Your task to perform on an android device: Clear the cart on ebay. Search for bose quietcomfort 35 on ebay, select the first entry, add it to the cart, then select checkout. Image 0: 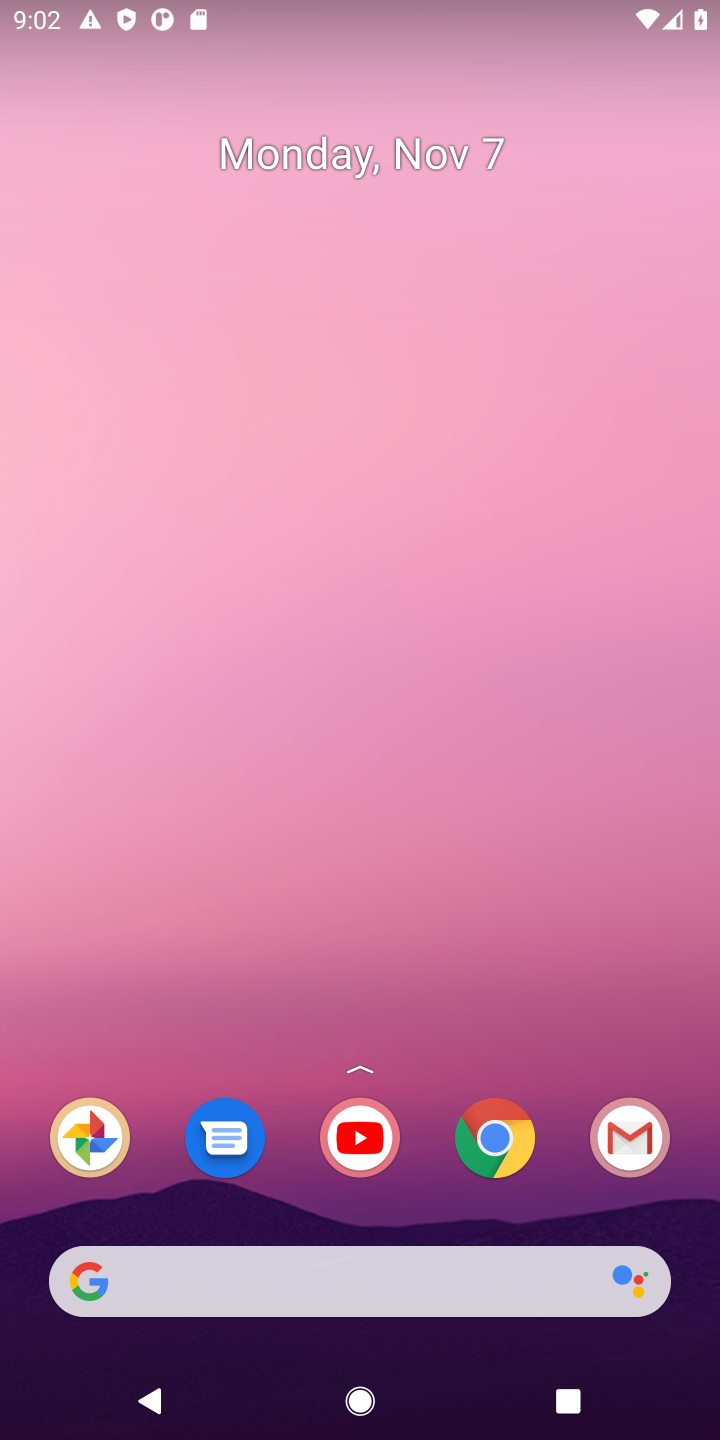
Step 0: drag from (412, 1226) to (366, 219)
Your task to perform on an android device: Clear the cart on ebay. Search for bose quietcomfort 35 on ebay, select the first entry, add it to the cart, then select checkout. Image 1: 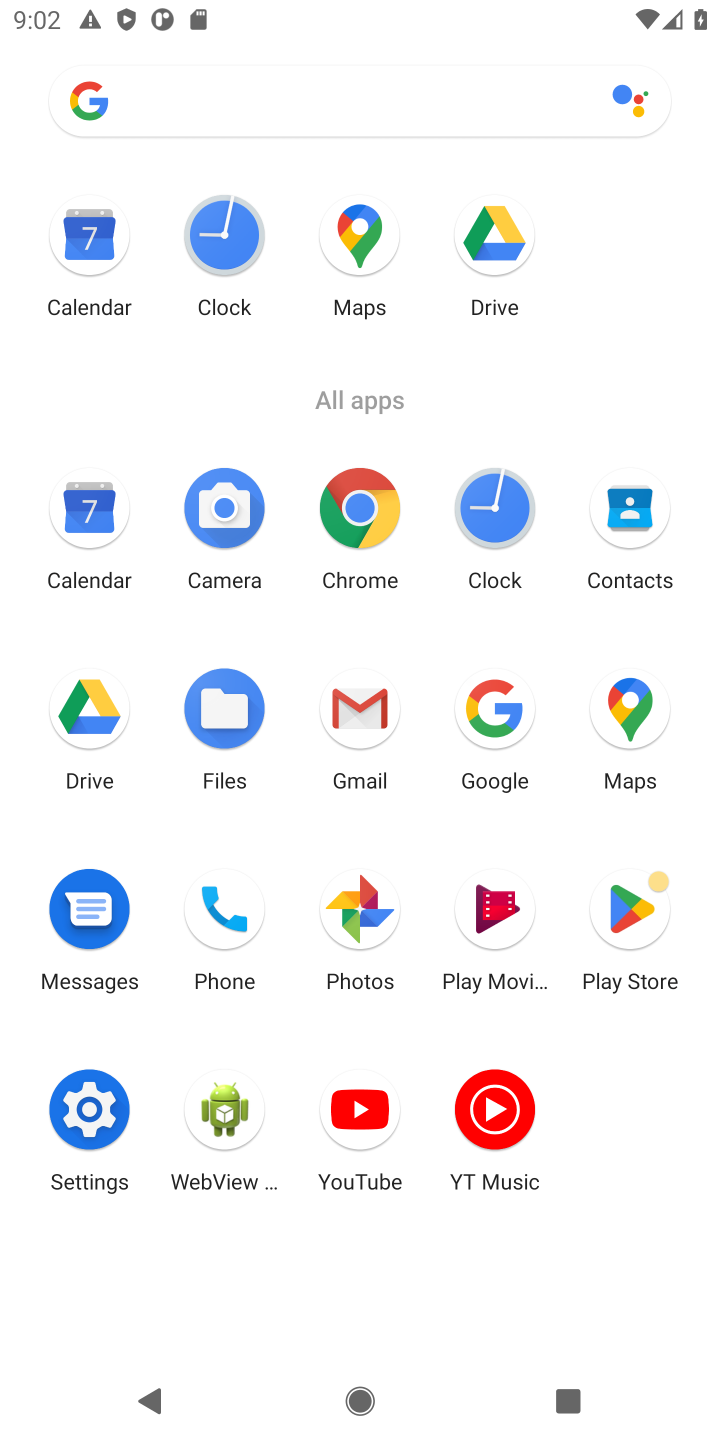
Step 1: click (363, 517)
Your task to perform on an android device: Clear the cart on ebay. Search for bose quietcomfort 35 on ebay, select the first entry, add it to the cart, then select checkout. Image 2: 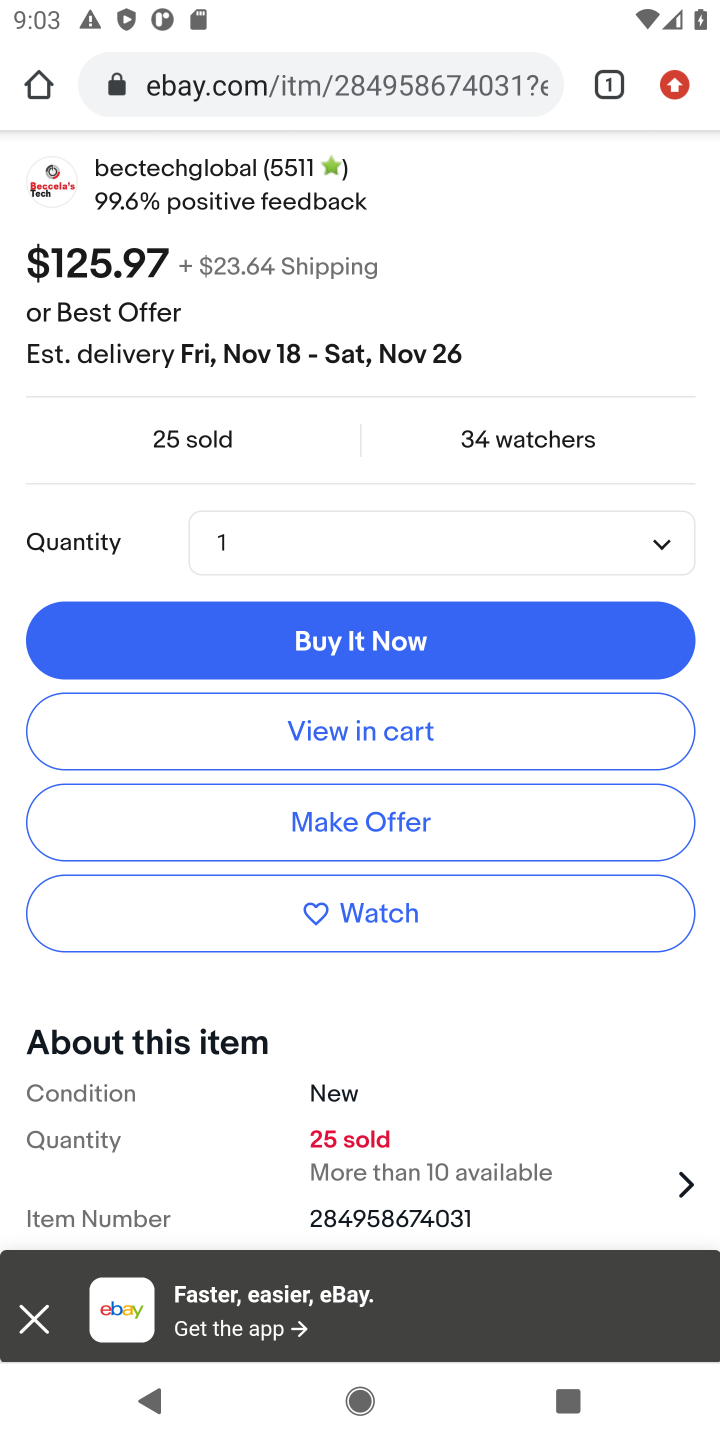
Step 2: click (376, 71)
Your task to perform on an android device: Clear the cart on ebay. Search for bose quietcomfort 35 on ebay, select the first entry, add it to the cart, then select checkout. Image 3: 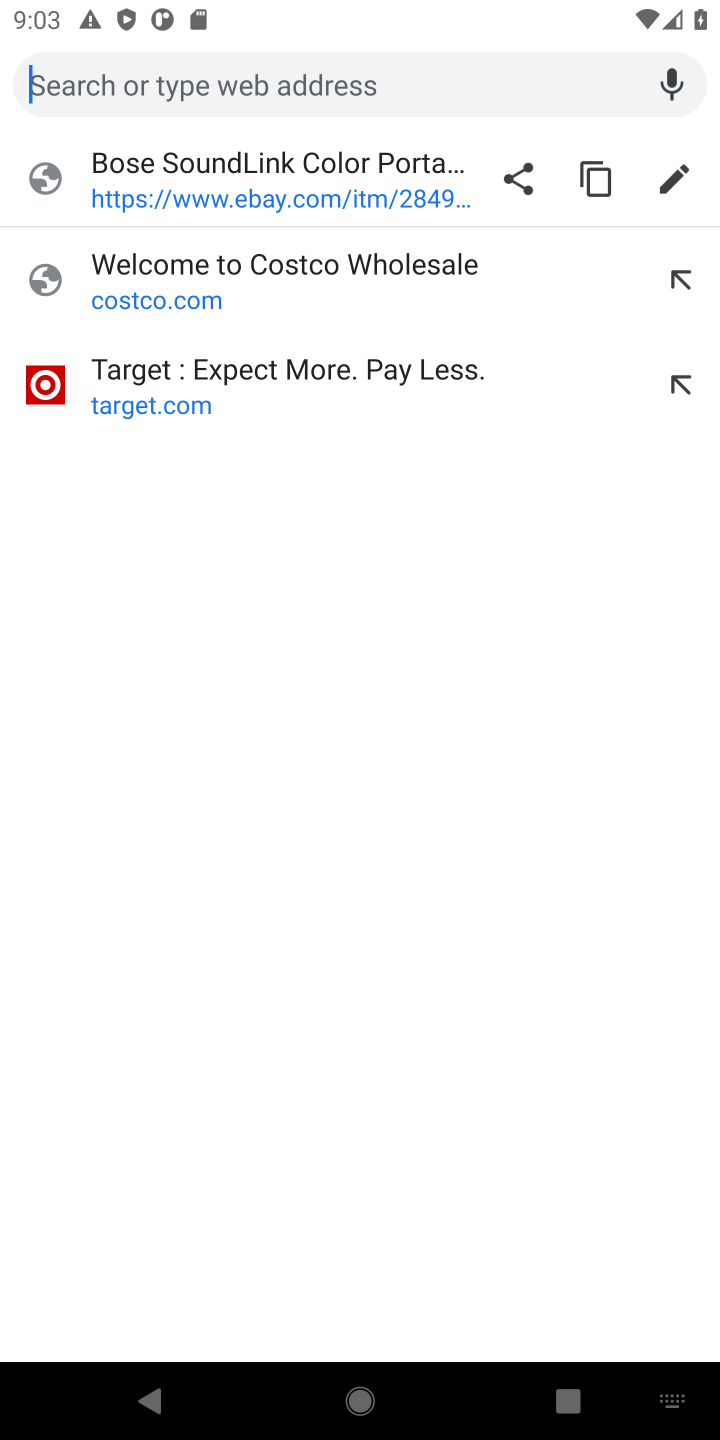
Step 3: type "ebay.com"
Your task to perform on an android device: Clear the cart on ebay. Search for bose quietcomfort 35 on ebay, select the first entry, add it to the cart, then select checkout. Image 4: 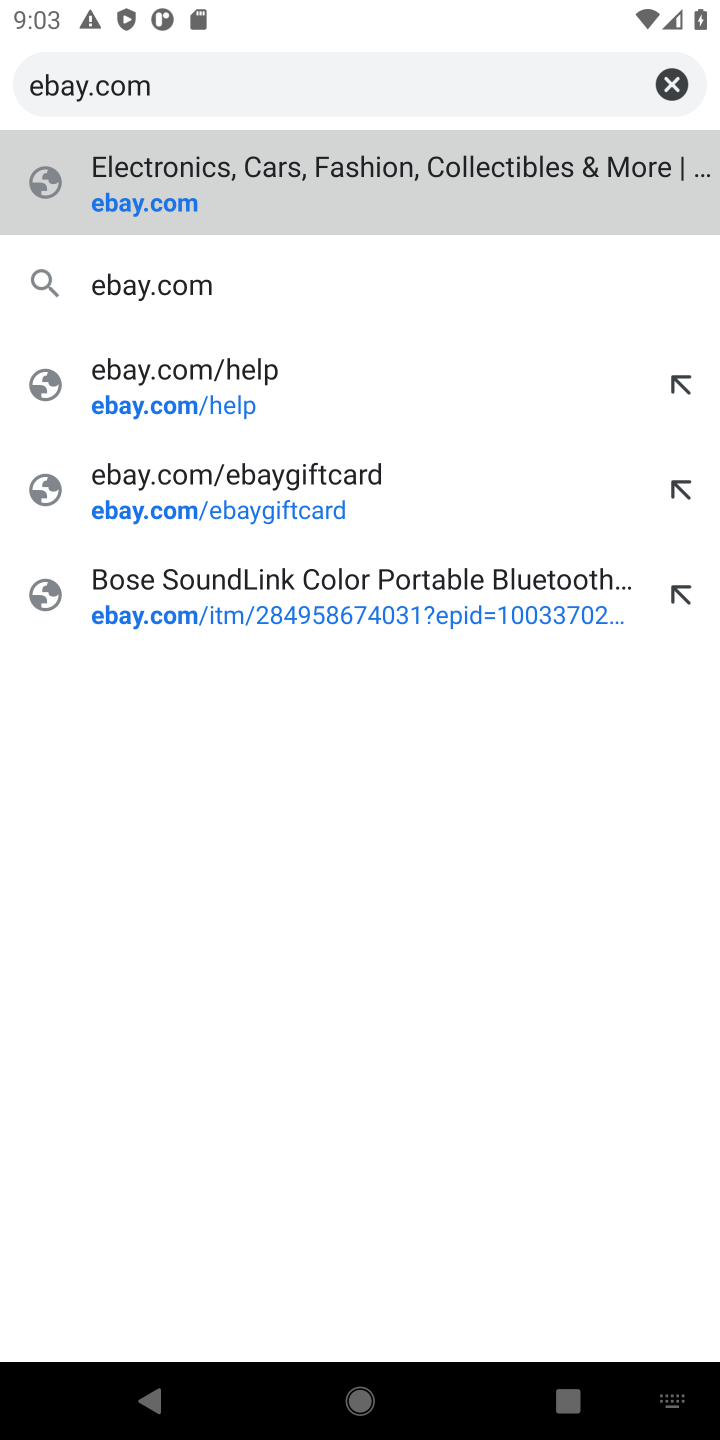
Step 4: press enter
Your task to perform on an android device: Clear the cart on ebay. Search for bose quietcomfort 35 on ebay, select the first entry, add it to the cart, then select checkout. Image 5: 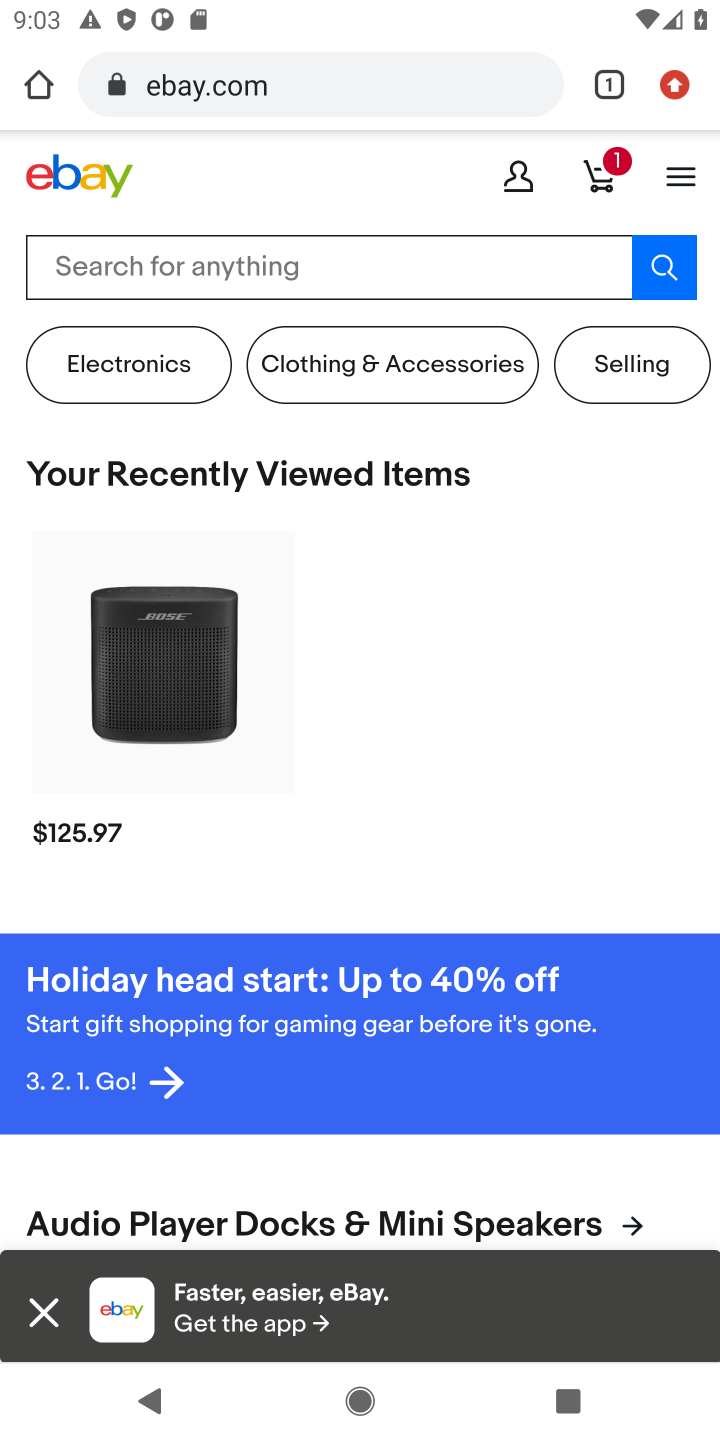
Step 5: click (602, 185)
Your task to perform on an android device: Clear the cart on ebay. Search for bose quietcomfort 35 on ebay, select the first entry, add it to the cart, then select checkout. Image 6: 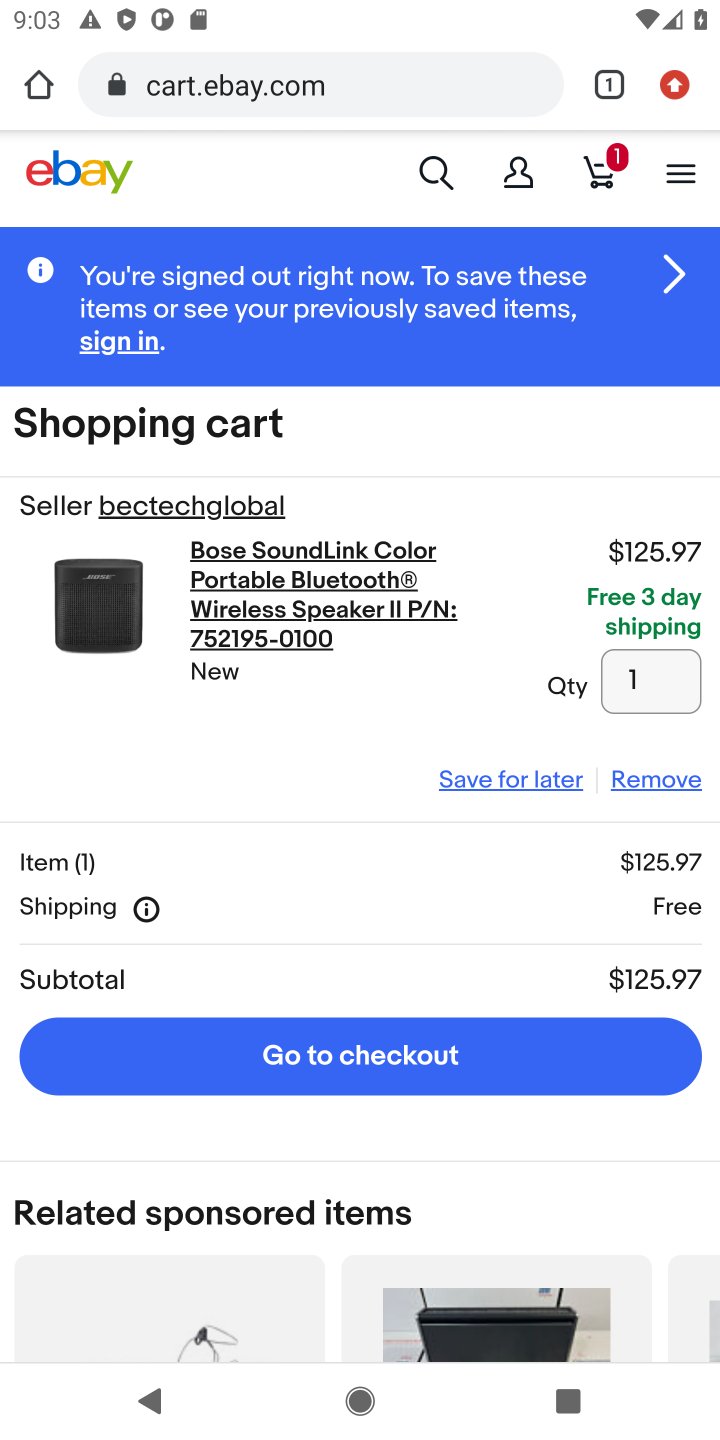
Step 6: click (686, 780)
Your task to perform on an android device: Clear the cart on ebay. Search for bose quietcomfort 35 on ebay, select the first entry, add it to the cart, then select checkout. Image 7: 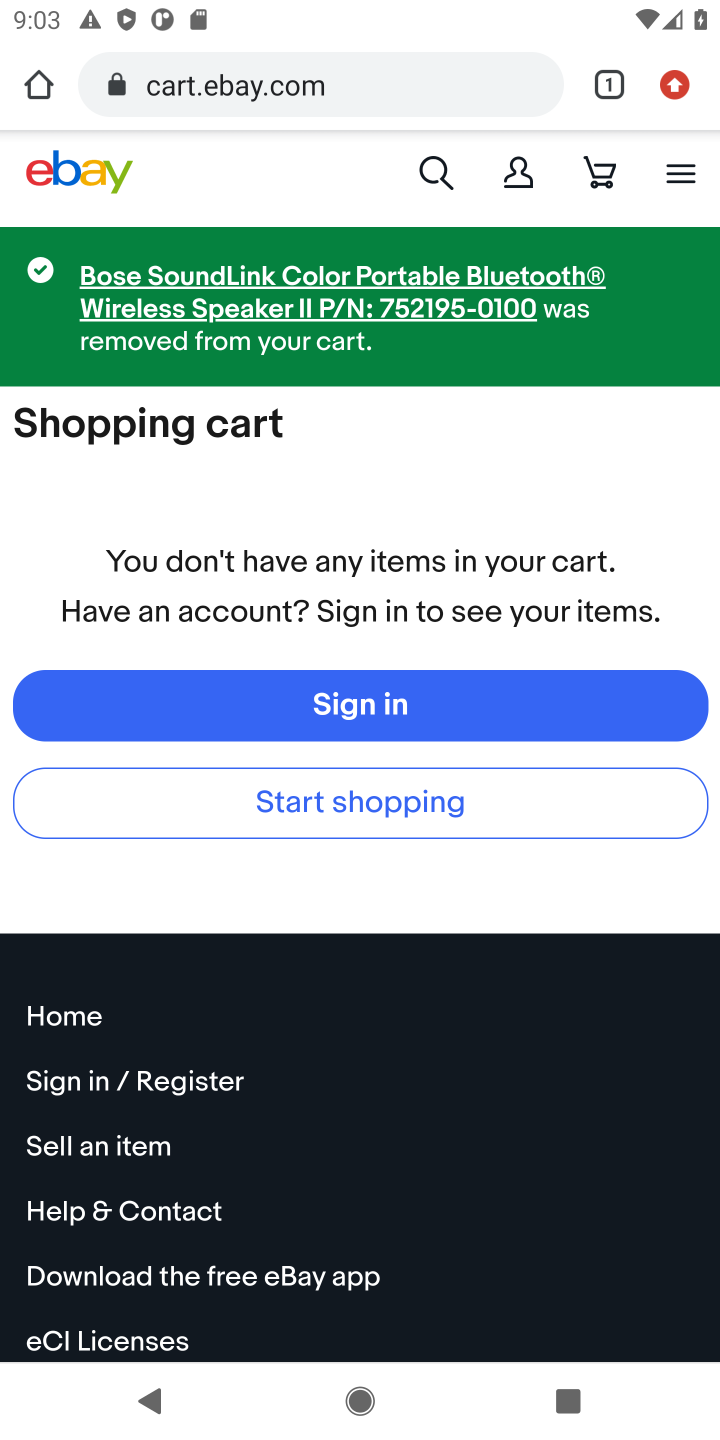
Step 7: click (423, 794)
Your task to perform on an android device: Clear the cart on ebay. Search for bose quietcomfort 35 on ebay, select the first entry, add it to the cart, then select checkout. Image 8: 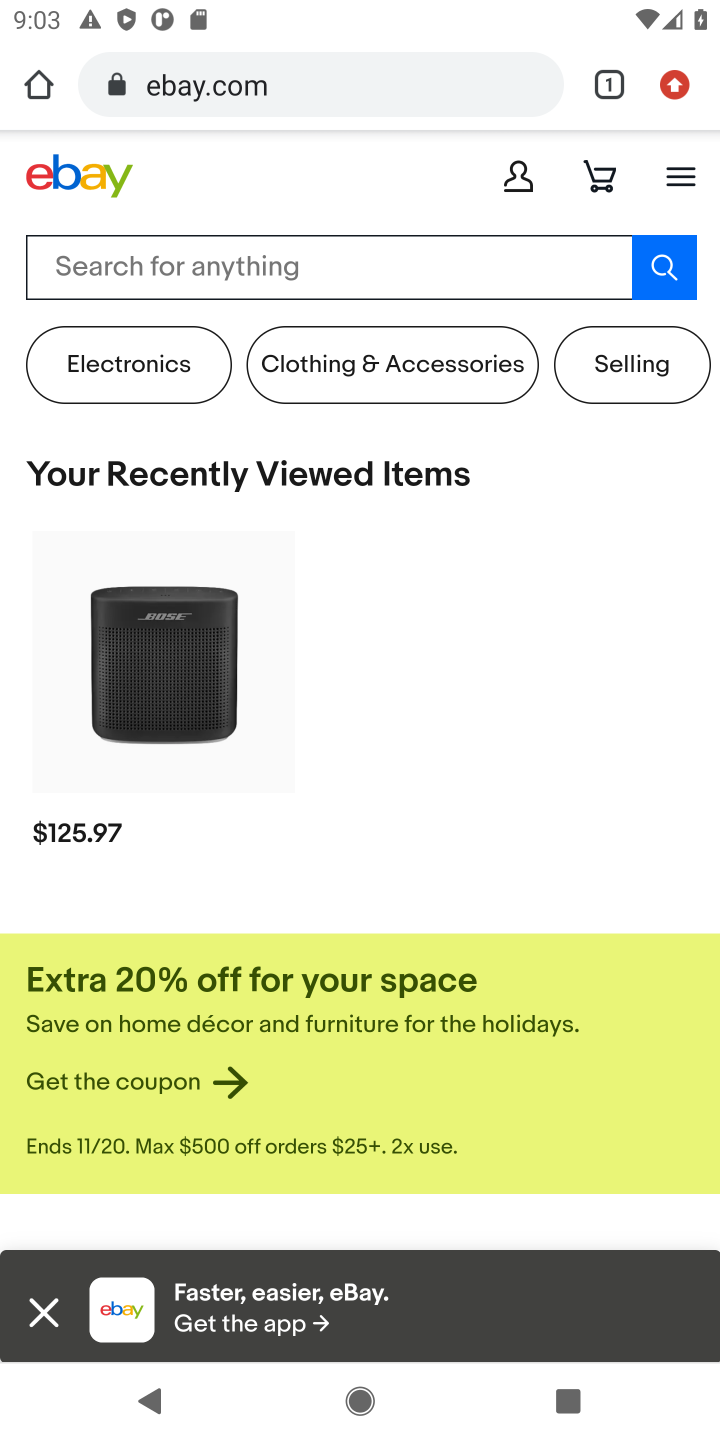
Step 8: click (364, 244)
Your task to perform on an android device: Clear the cart on ebay. Search for bose quietcomfort 35 on ebay, select the first entry, add it to the cart, then select checkout. Image 9: 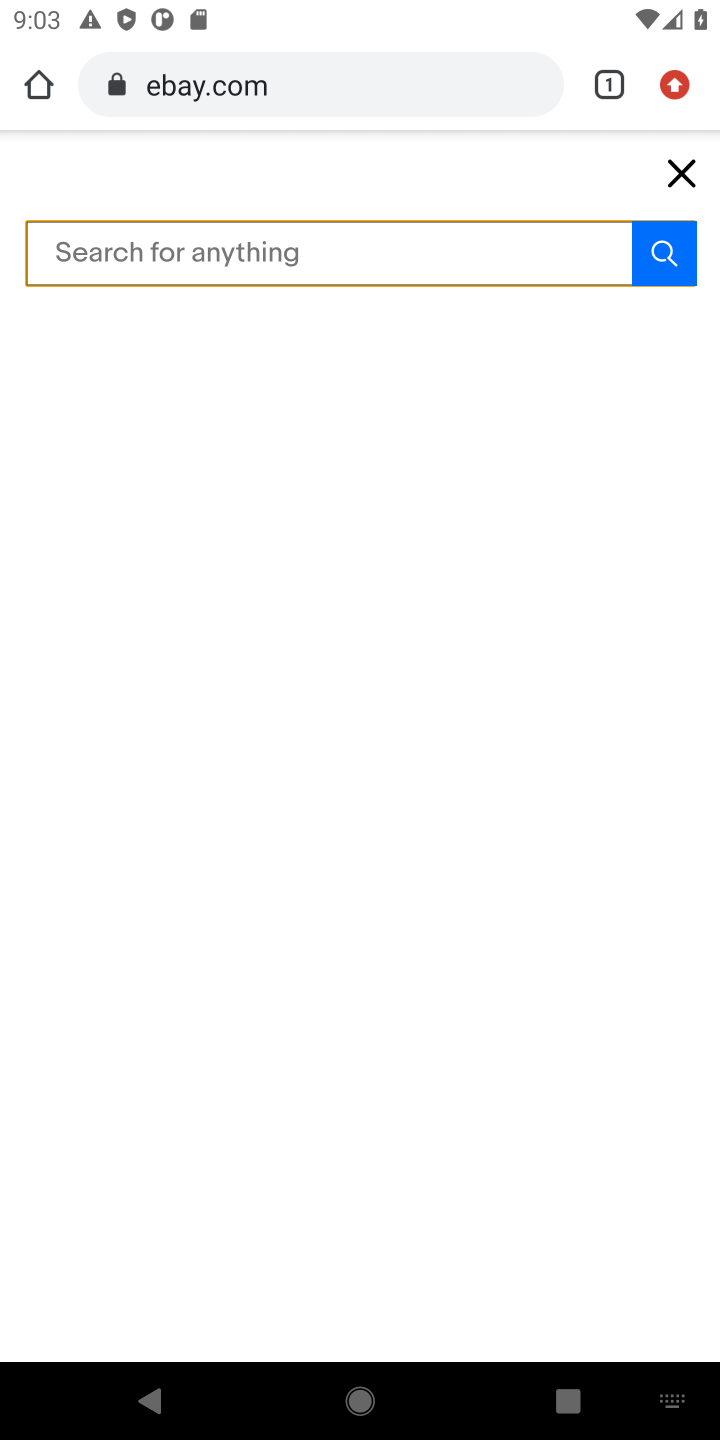
Step 9: type "quietcomfort 35"
Your task to perform on an android device: Clear the cart on ebay. Search for bose quietcomfort 35 on ebay, select the first entry, add it to the cart, then select checkout. Image 10: 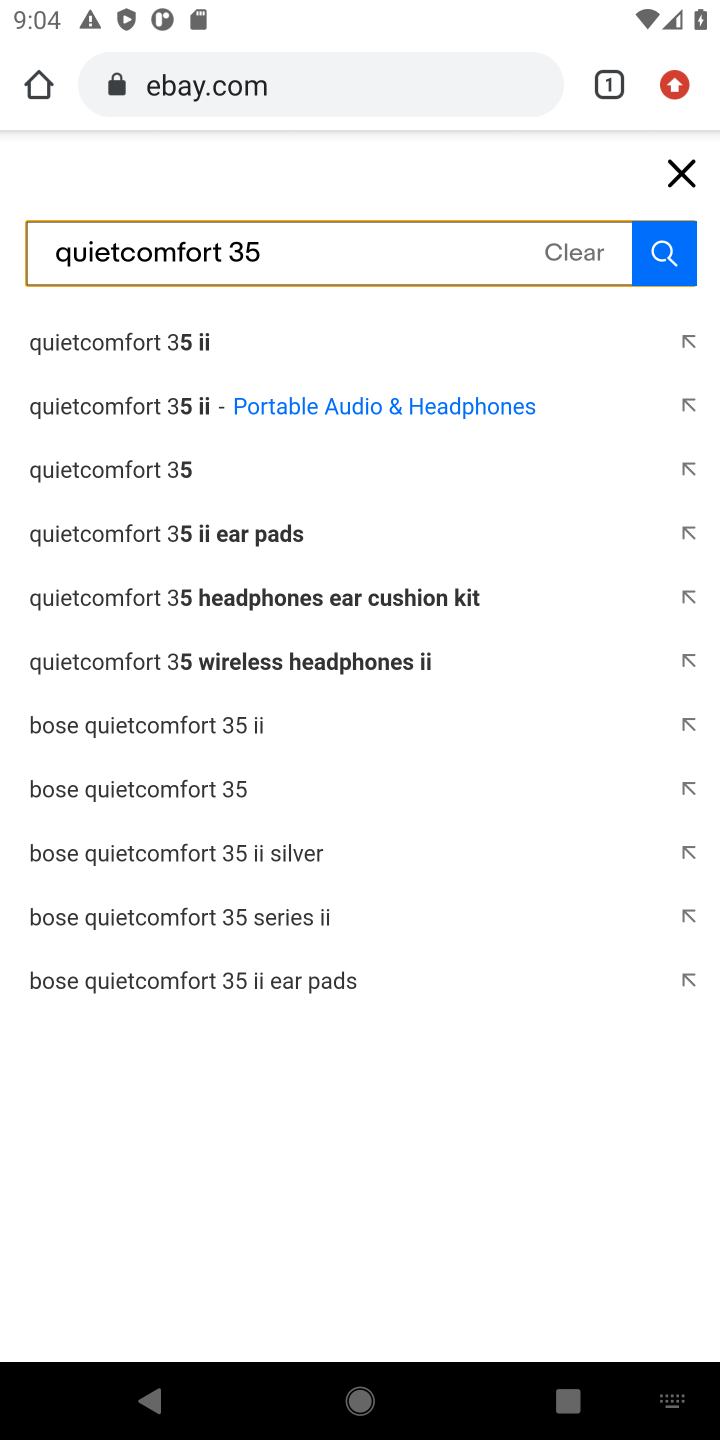
Step 10: press enter
Your task to perform on an android device: Clear the cart on ebay. Search for bose quietcomfort 35 on ebay, select the first entry, add it to the cart, then select checkout. Image 11: 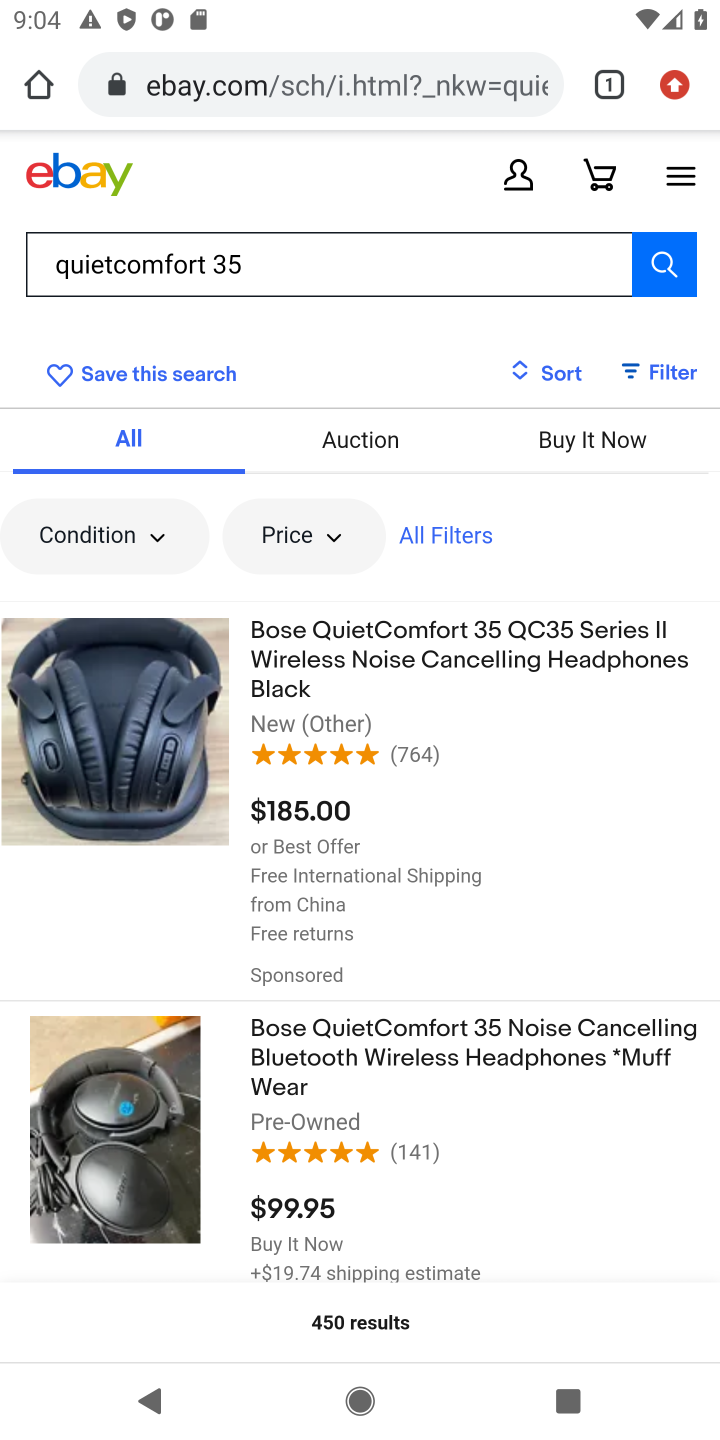
Step 11: drag from (394, 1216) to (360, 906)
Your task to perform on an android device: Clear the cart on ebay. Search for bose quietcomfort 35 on ebay, select the first entry, add it to the cart, then select checkout. Image 12: 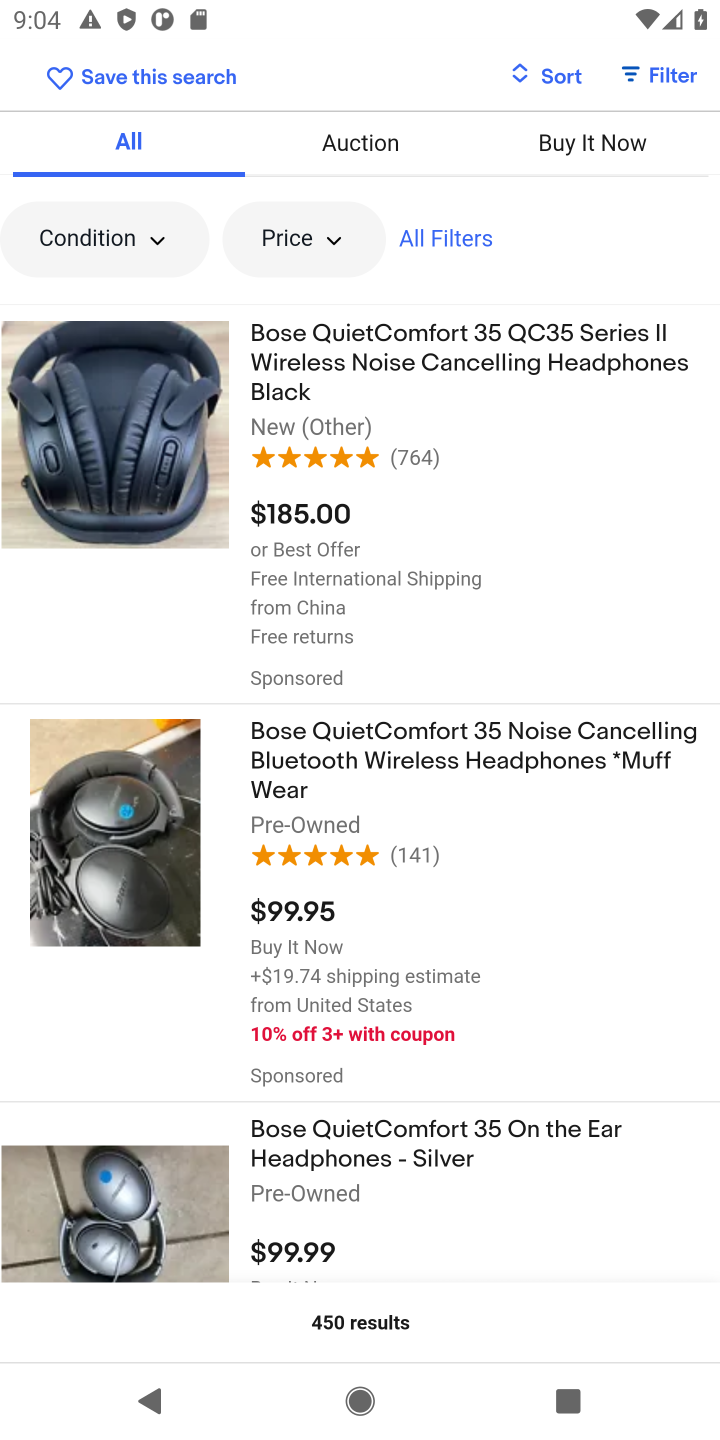
Step 12: click (182, 409)
Your task to perform on an android device: Clear the cart on ebay. Search for bose quietcomfort 35 on ebay, select the first entry, add it to the cart, then select checkout. Image 13: 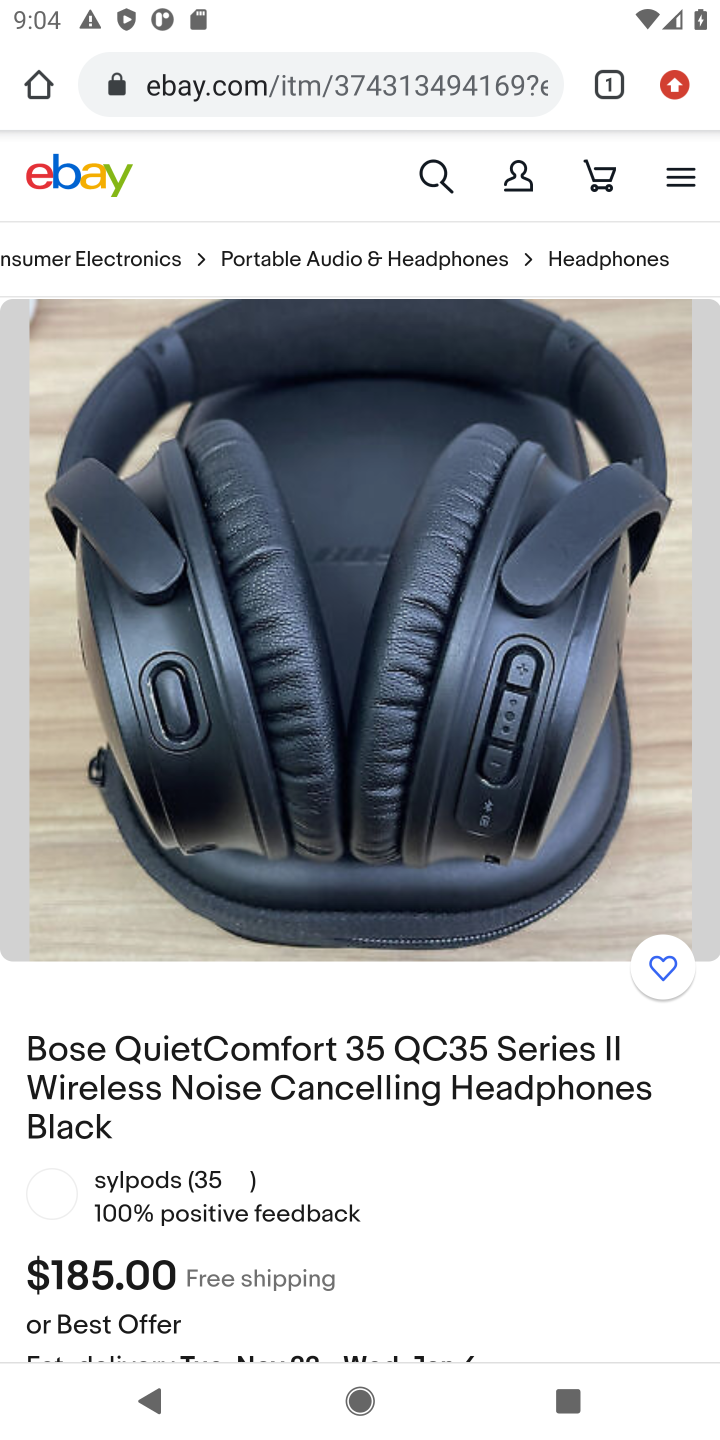
Step 13: drag from (390, 1164) to (406, 466)
Your task to perform on an android device: Clear the cart on ebay. Search for bose quietcomfort 35 on ebay, select the first entry, add it to the cart, then select checkout. Image 14: 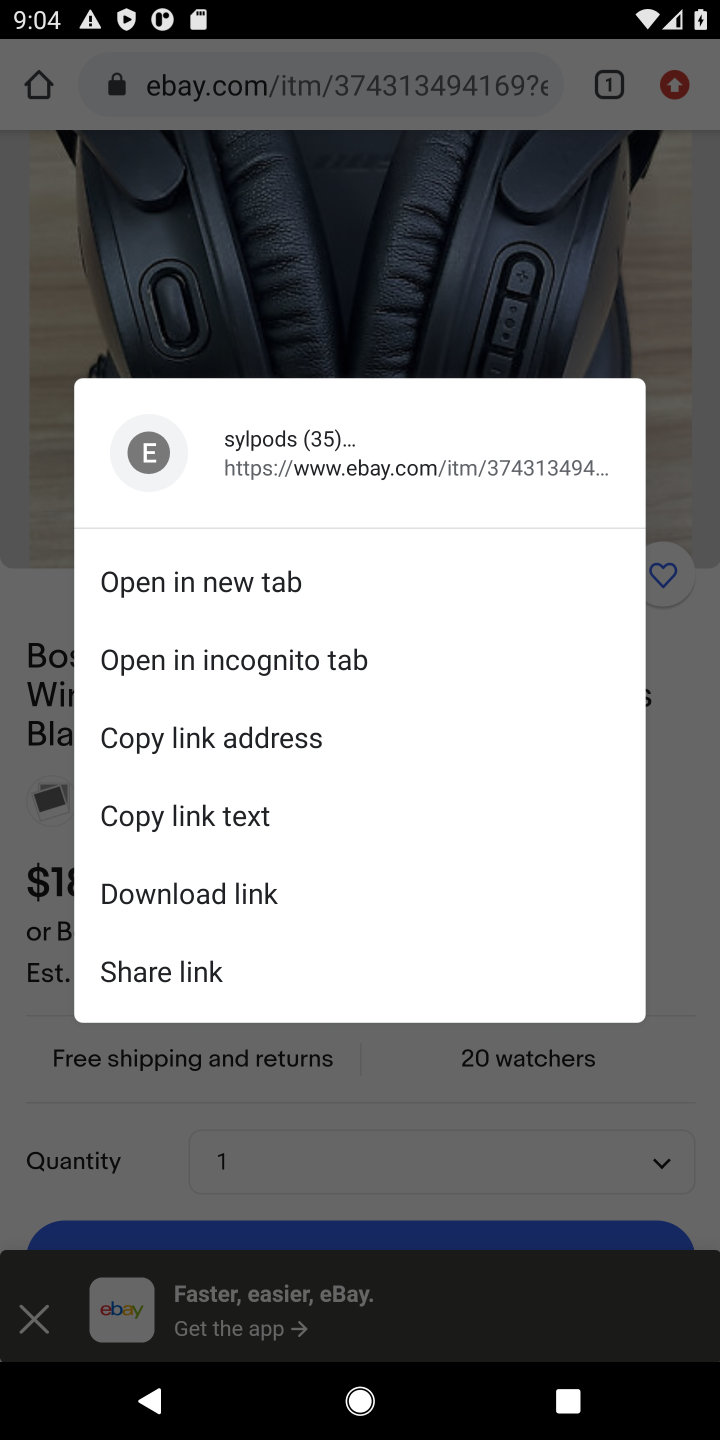
Step 14: click (473, 323)
Your task to perform on an android device: Clear the cart on ebay. Search for bose quietcomfort 35 on ebay, select the first entry, add it to the cart, then select checkout. Image 15: 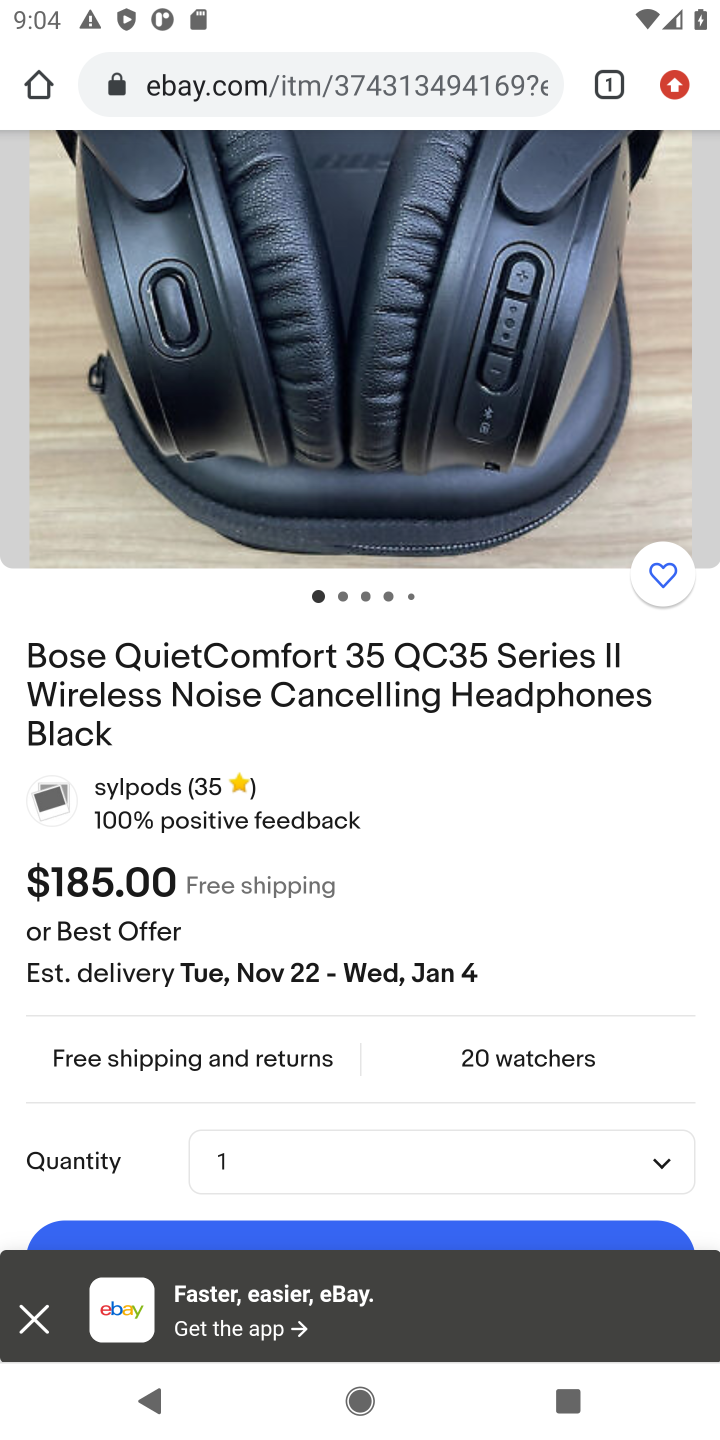
Step 15: drag from (235, 1134) to (279, 781)
Your task to perform on an android device: Clear the cart on ebay. Search for bose quietcomfort 35 on ebay, select the first entry, add it to the cart, then select checkout. Image 16: 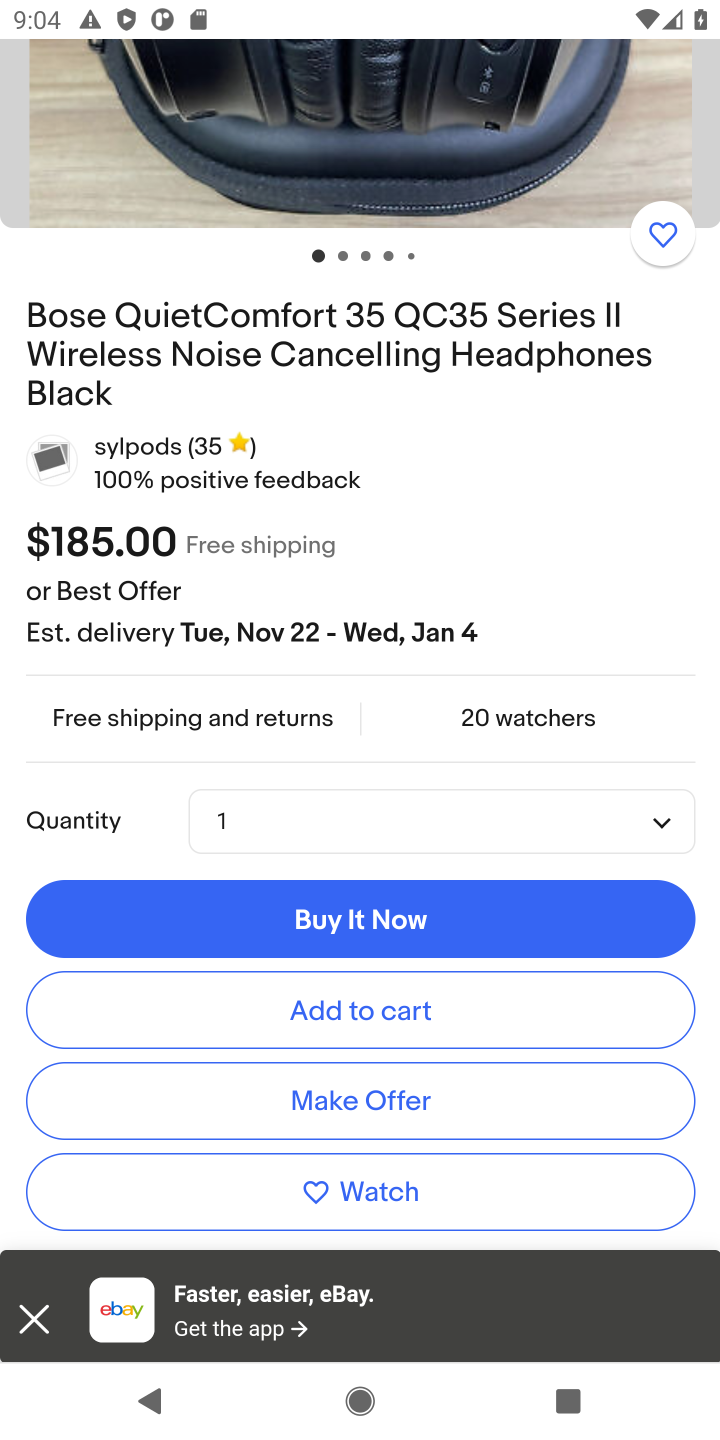
Step 16: click (377, 1004)
Your task to perform on an android device: Clear the cart on ebay. Search for bose quietcomfort 35 on ebay, select the first entry, add it to the cart, then select checkout. Image 17: 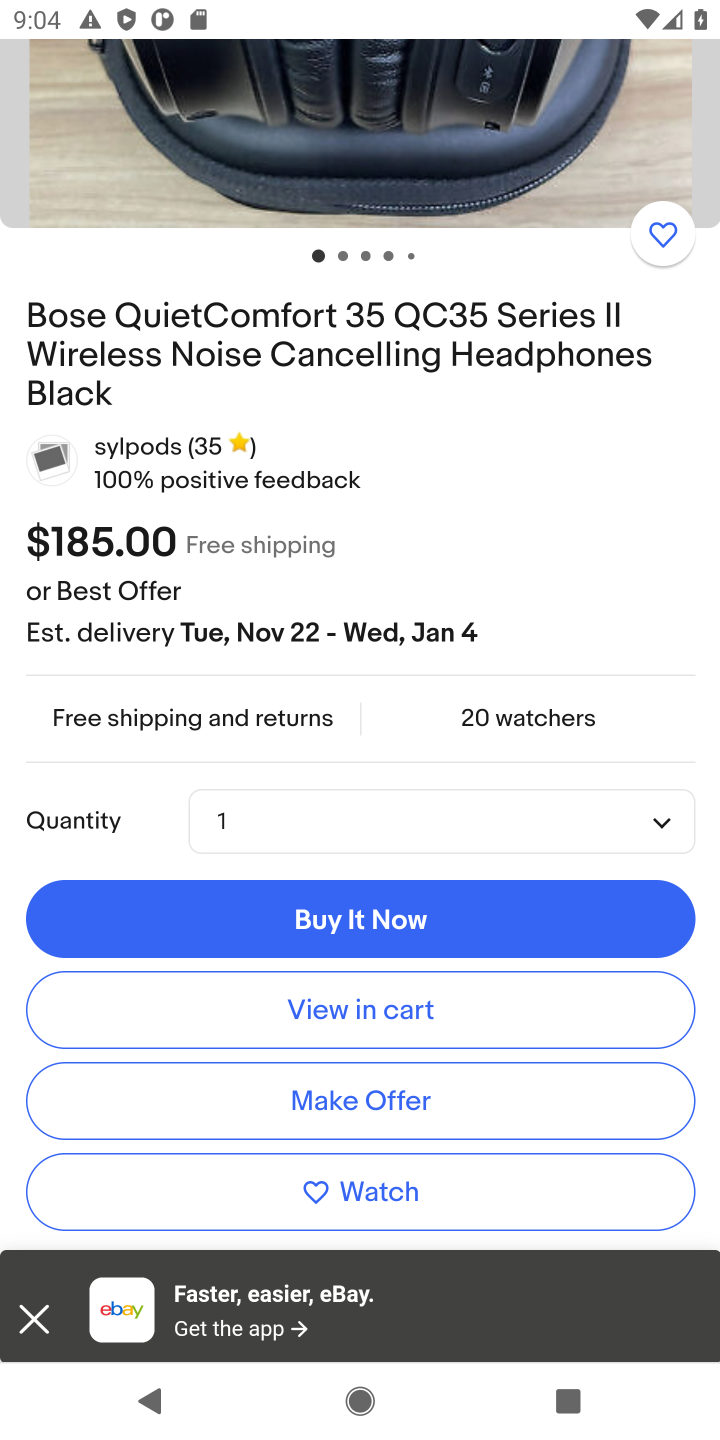
Step 17: click (377, 1004)
Your task to perform on an android device: Clear the cart on ebay. Search for bose quietcomfort 35 on ebay, select the first entry, add it to the cart, then select checkout. Image 18: 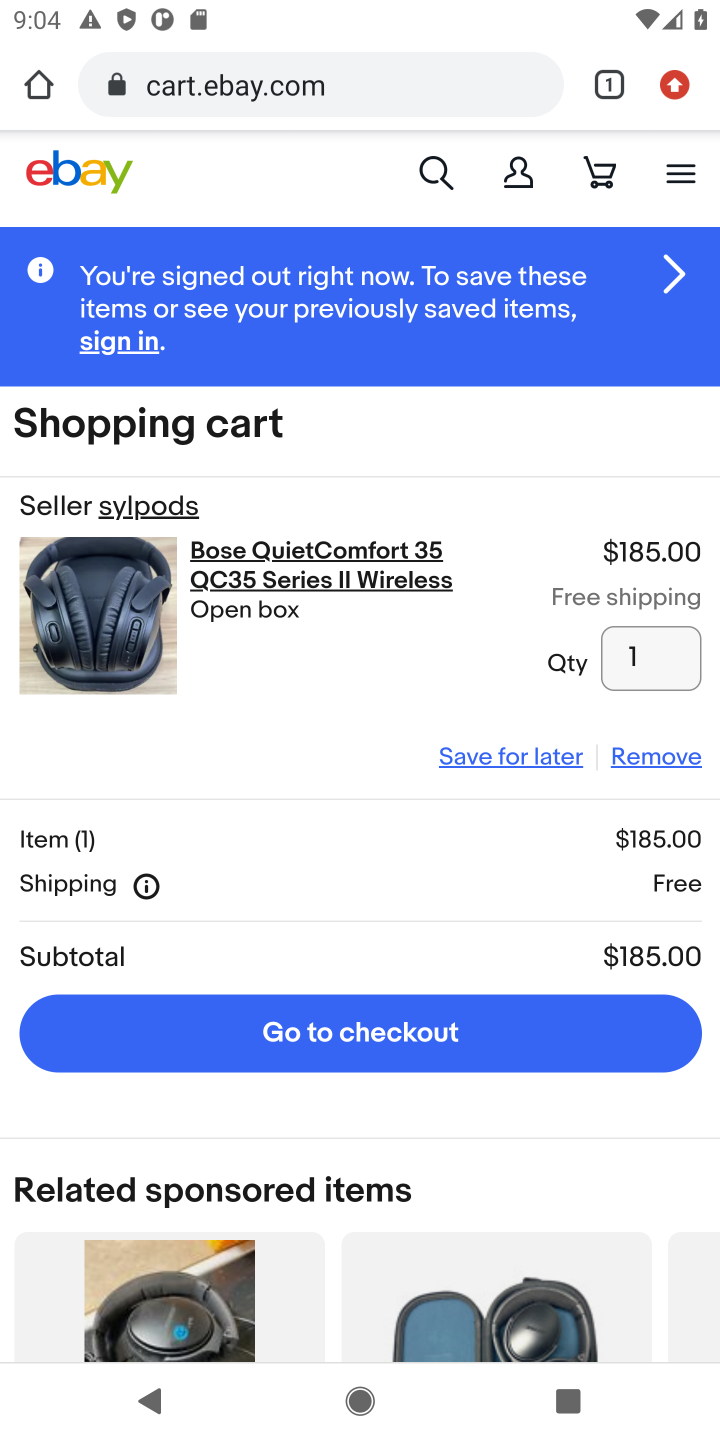
Step 18: click (377, 1004)
Your task to perform on an android device: Clear the cart on ebay. Search for bose quietcomfort 35 on ebay, select the first entry, add it to the cart, then select checkout. Image 19: 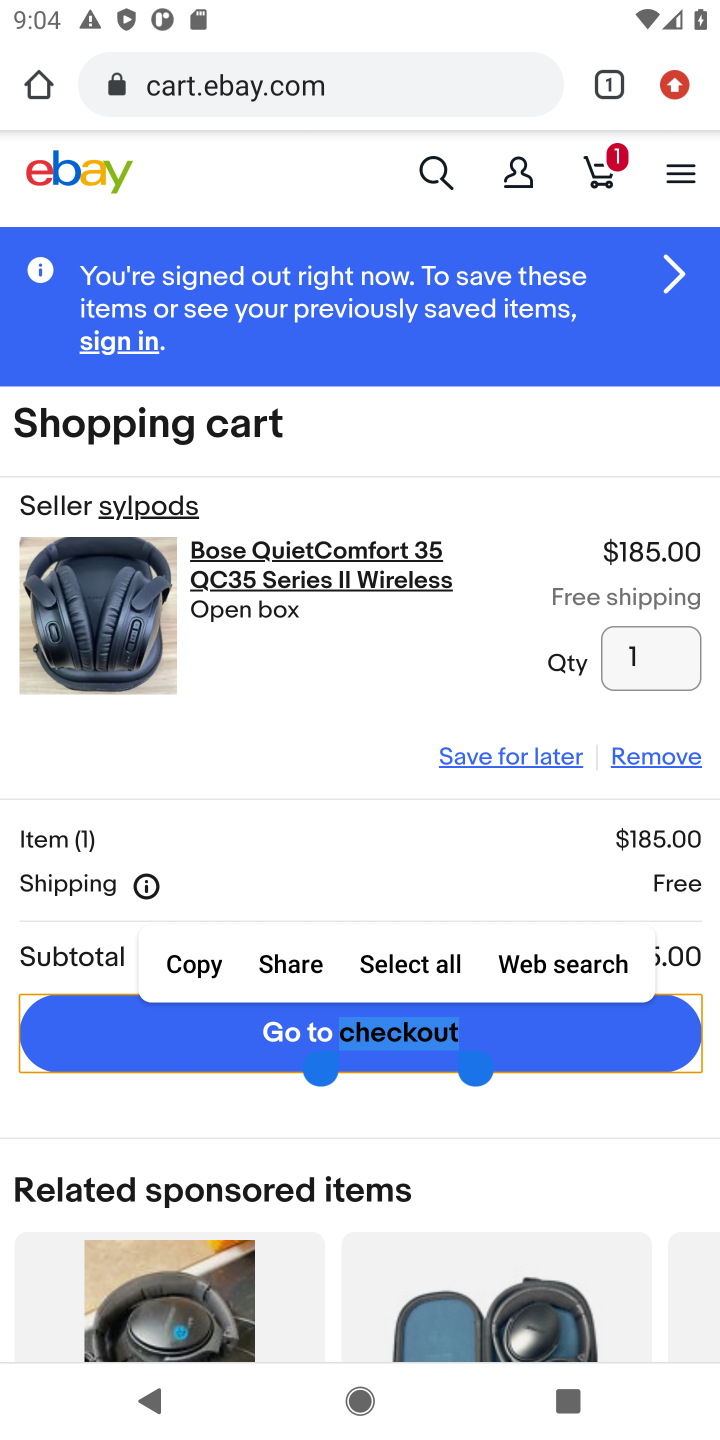
Step 19: click (412, 1028)
Your task to perform on an android device: Clear the cart on ebay. Search for bose quietcomfort 35 on ebay, select the first entry, add it to the cart, then select checkout. Image 20: 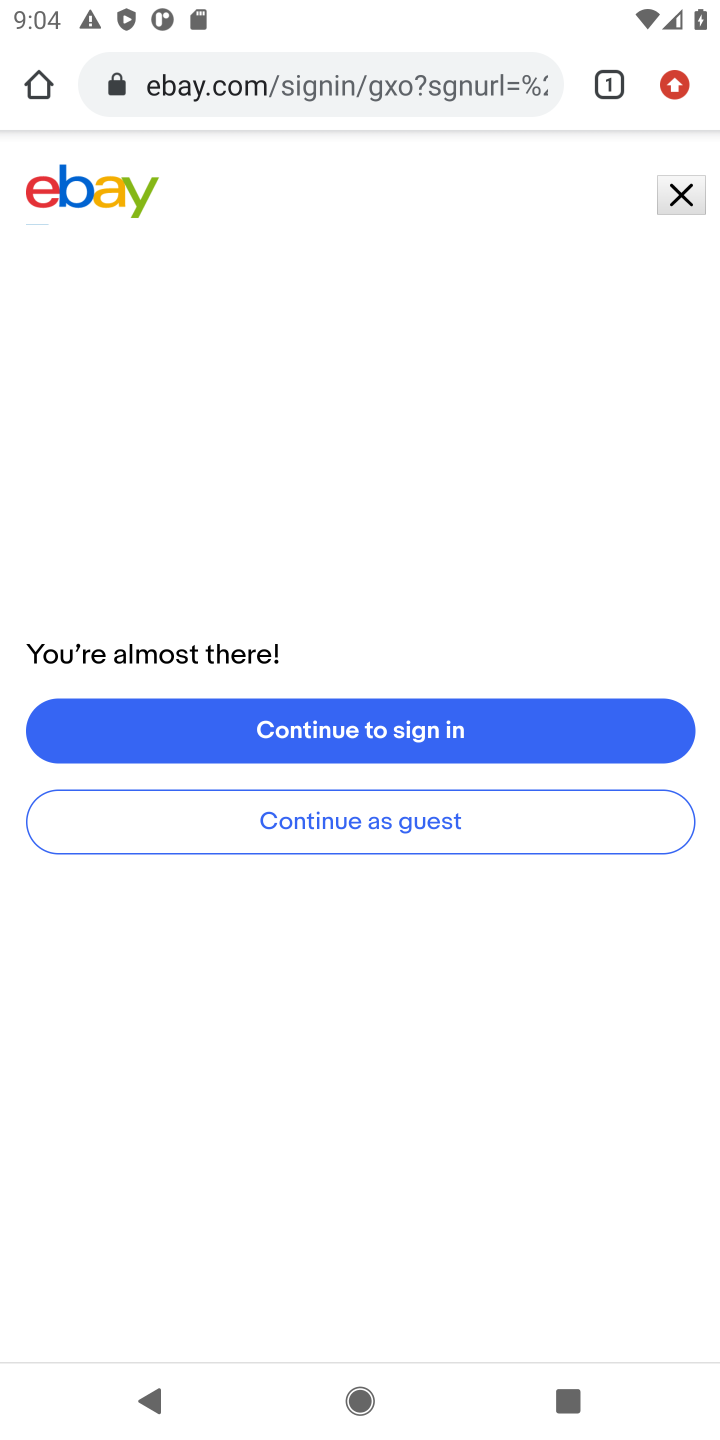
Step 20: task complete